Your task to perform on an android device: move an email to a new category in the gmail app Image 0: 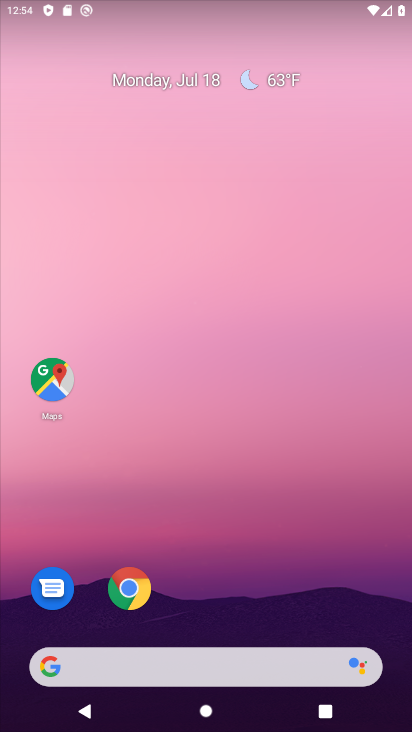
Step 0: drag from (214, 654) to (272, 204)
Your task to perform on an android device: move an email to a new category in the gmail app Image 1: 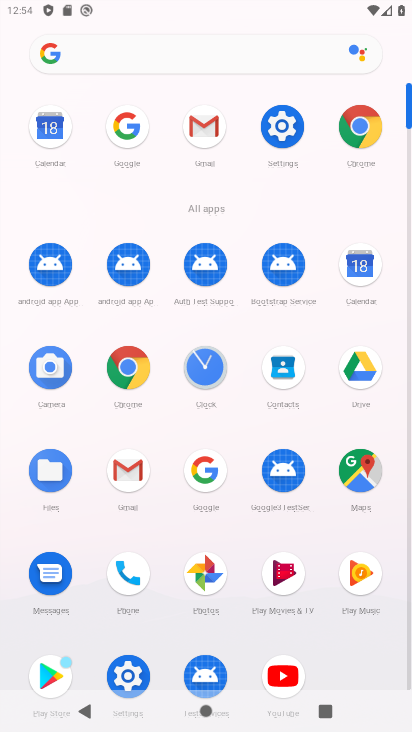
Step 1: click (206, 128)
Your task to perform on an android device: move an email to a new category in the gmail app Image 2: 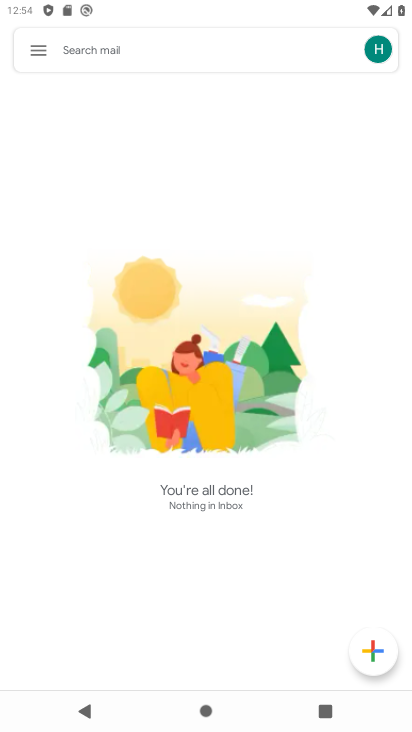
Step 2: click (31, 48)
Your task to perform on an android device: move an email to a new category in the gmail app Image 3: 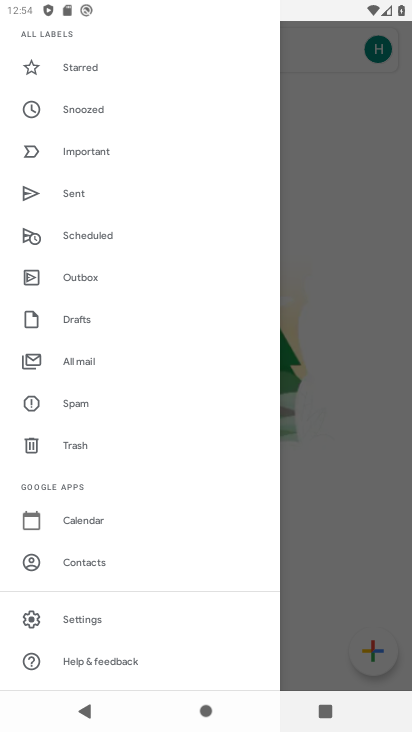
Step 3: click (94, 366)
Your task to perform on an android device: move an email to a new category in the gmail app Image 4: 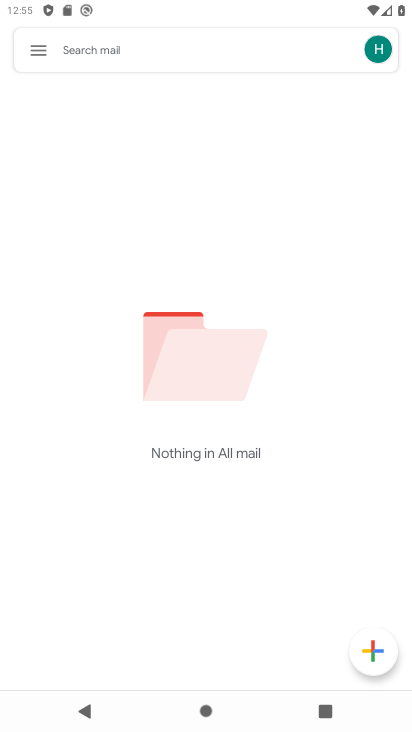
Step 4: task complete